Your task to perform on an android device: Show the shopping cart on walmart. Image 0: 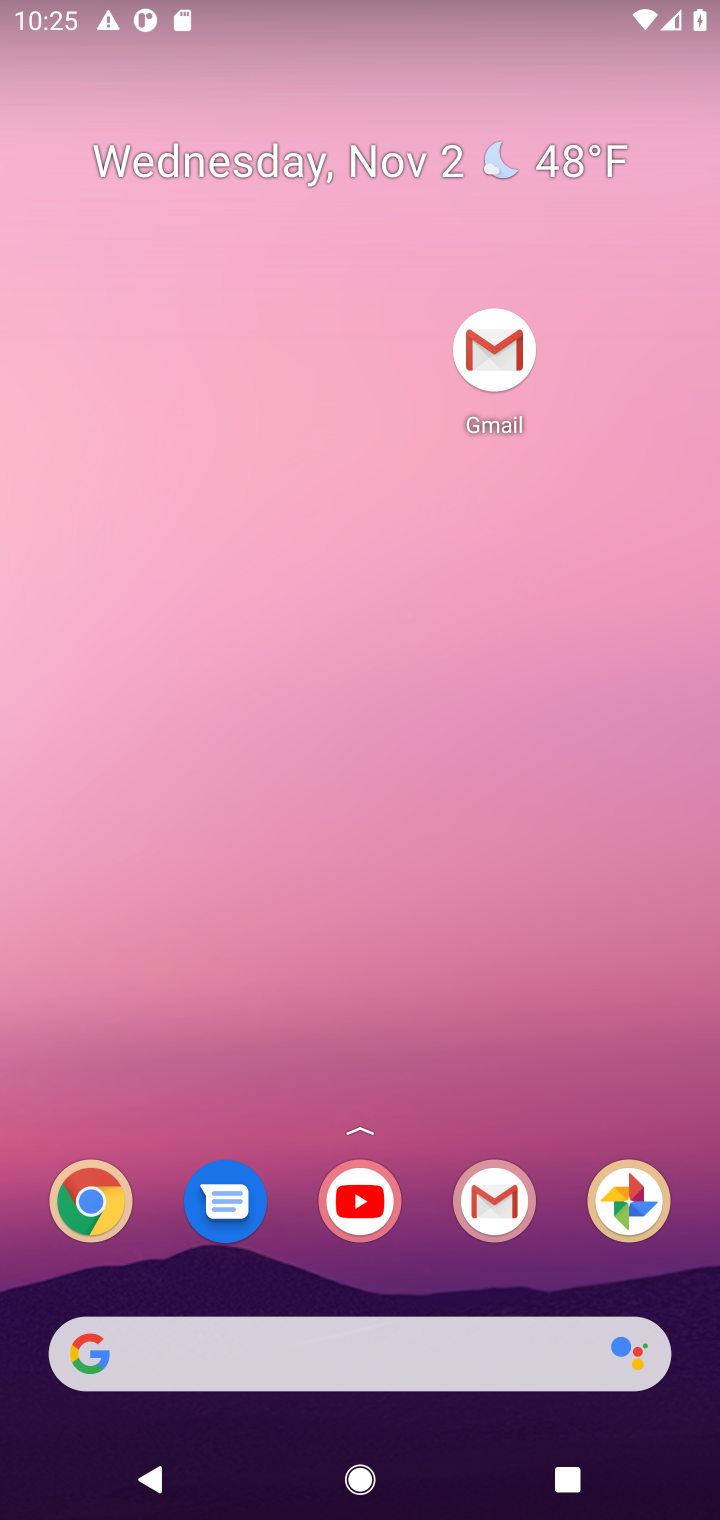
Step 0: drag from (408, 1257) to (298, 228)
Your task to perform on an android device: Show the shopping cart on walmart. Image 1: 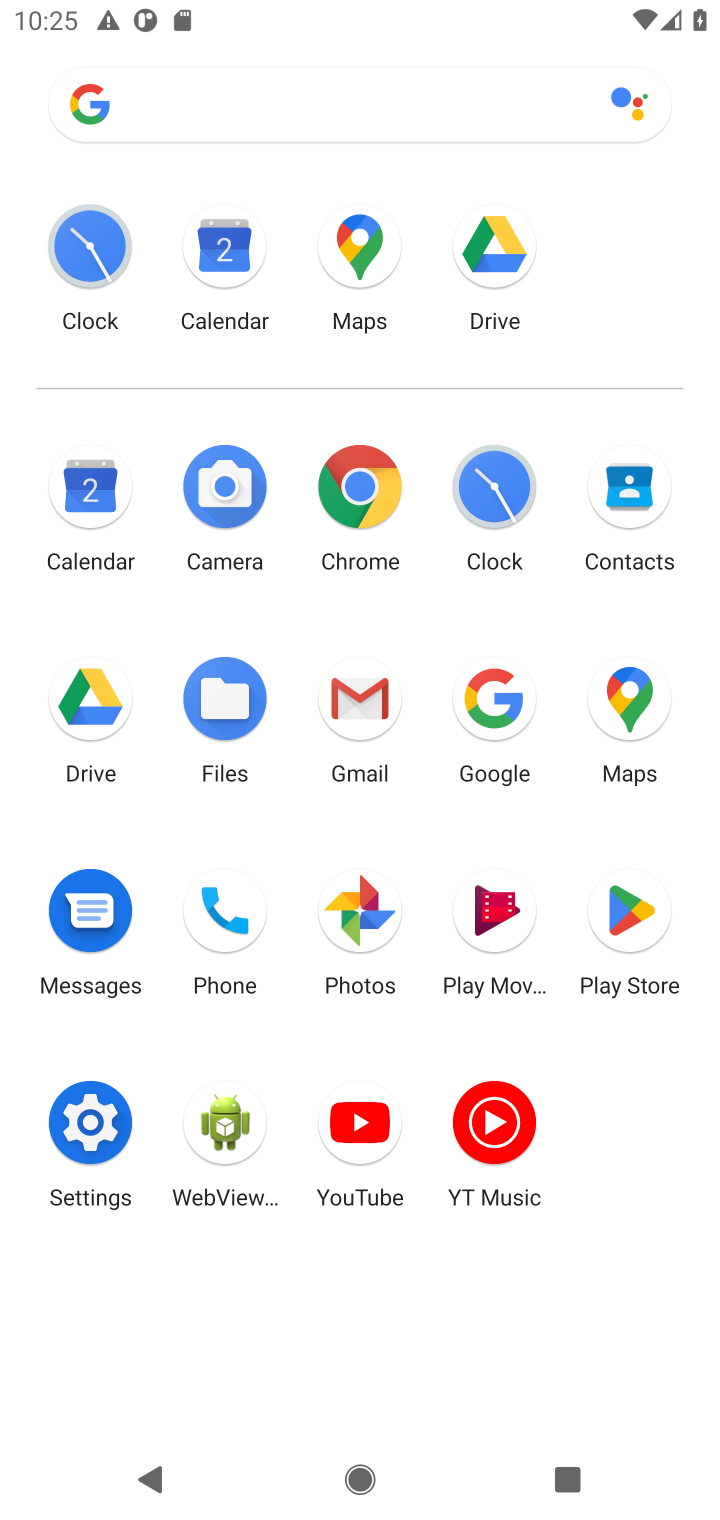
Step 1: click (364, 487)
Your task to perform on an android device: Show the shopping cart on walmart. Image 2: 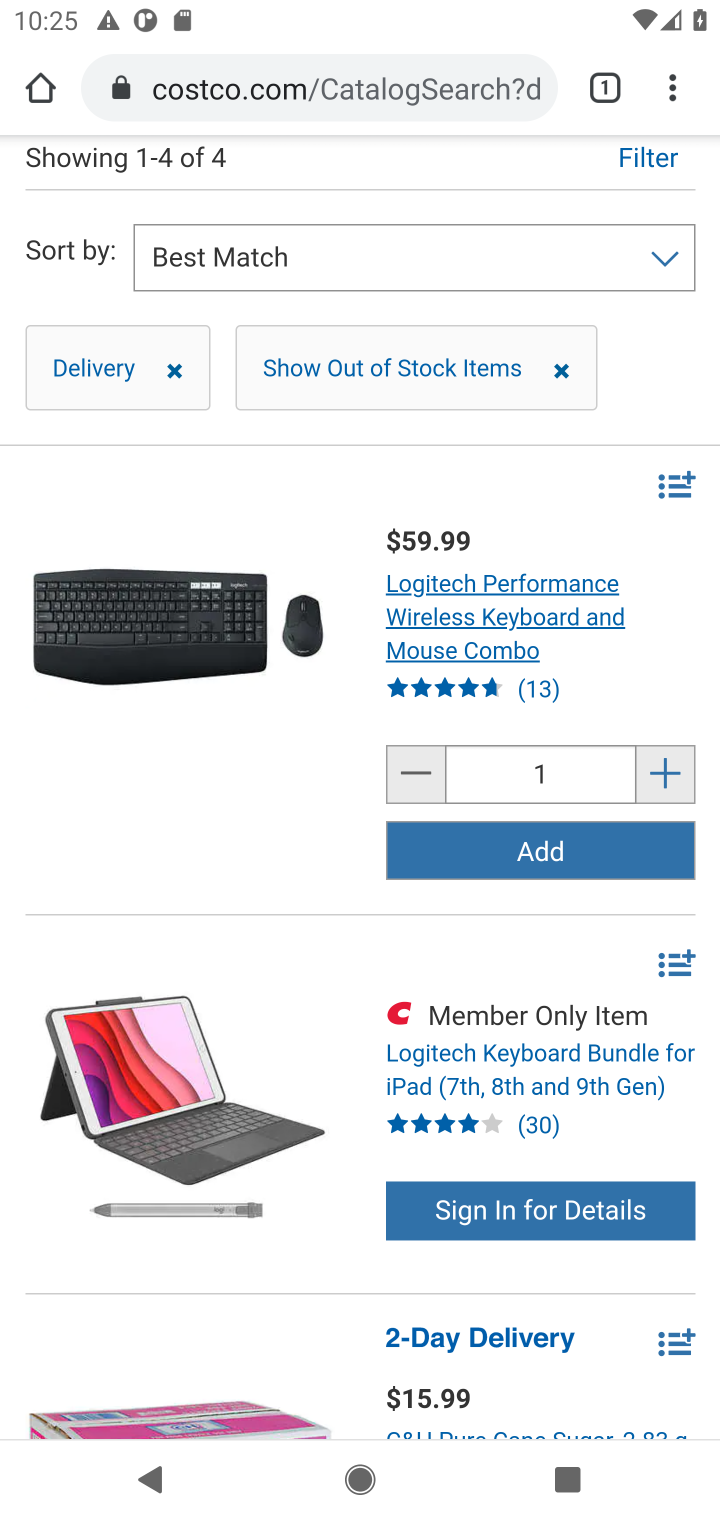
Step 2: click (365, 95)
Your task to perform on an android device: Show the shopping cart on walmart. Image 3: 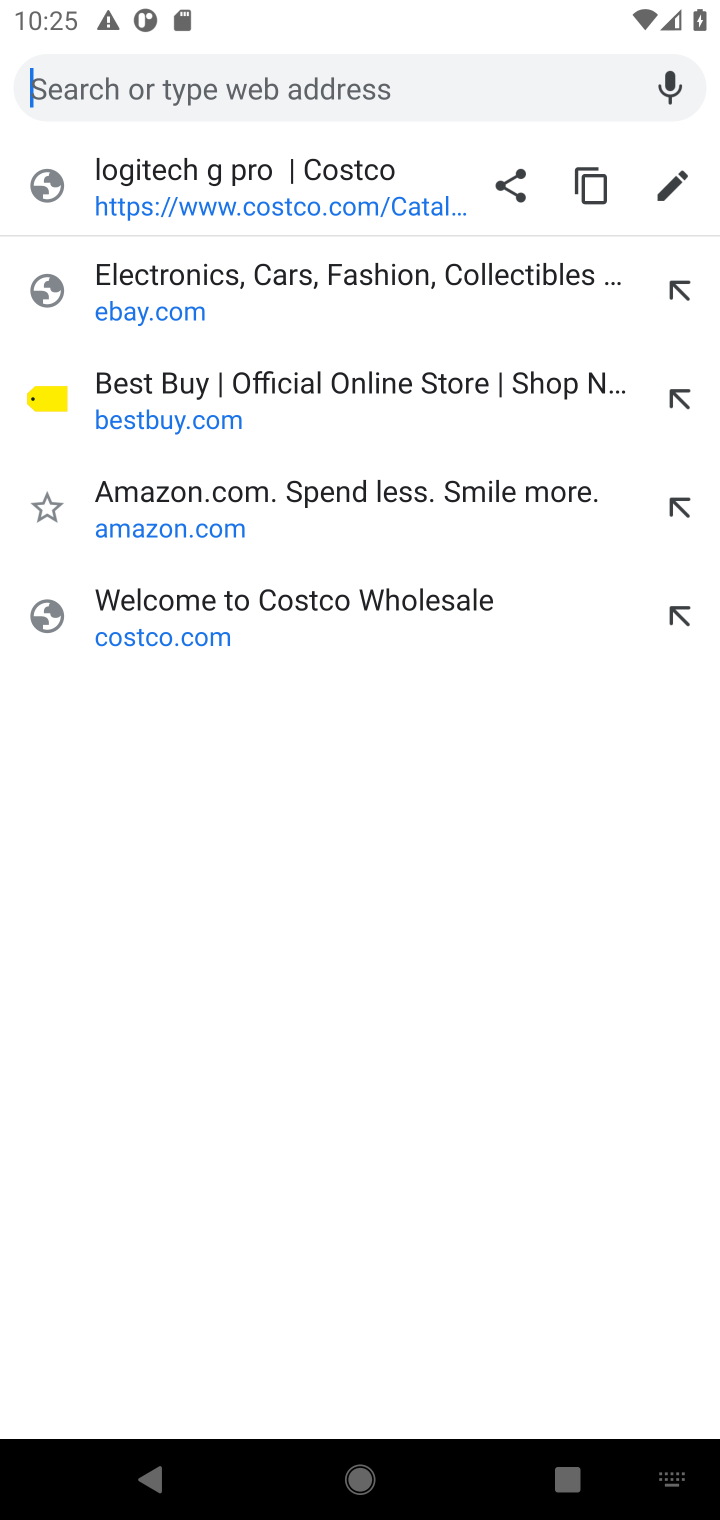
Step 3: type "walmart.com"
Your task to perform on an android device: Show the shopping cart on walmart. Image 4: 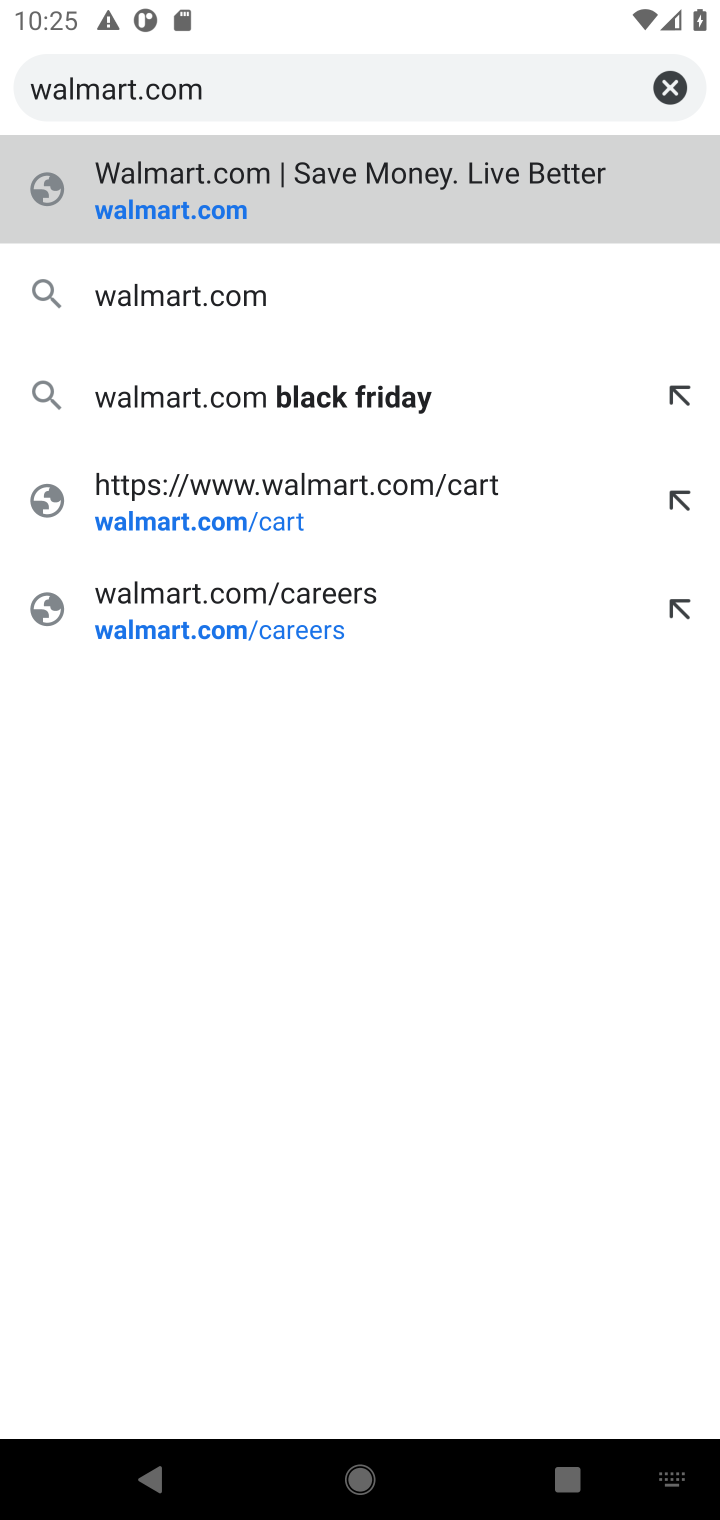
Step 4: press enter
Your task to perform on an android device: Show the shopping cart on walmart. Image 5: 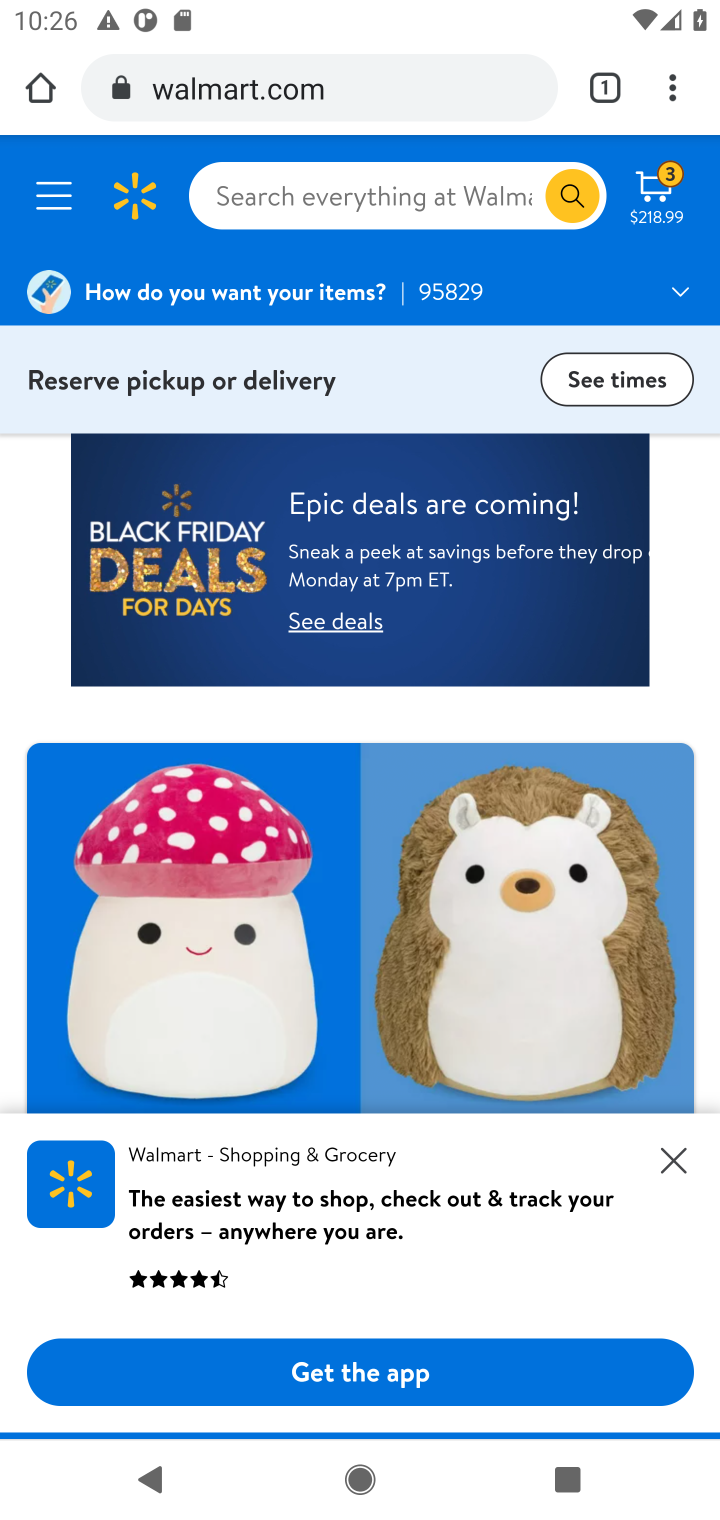
Step 5: click (648, 189)
Your task to perform on an android device: Show the shopping cart on walmart. Image 6: 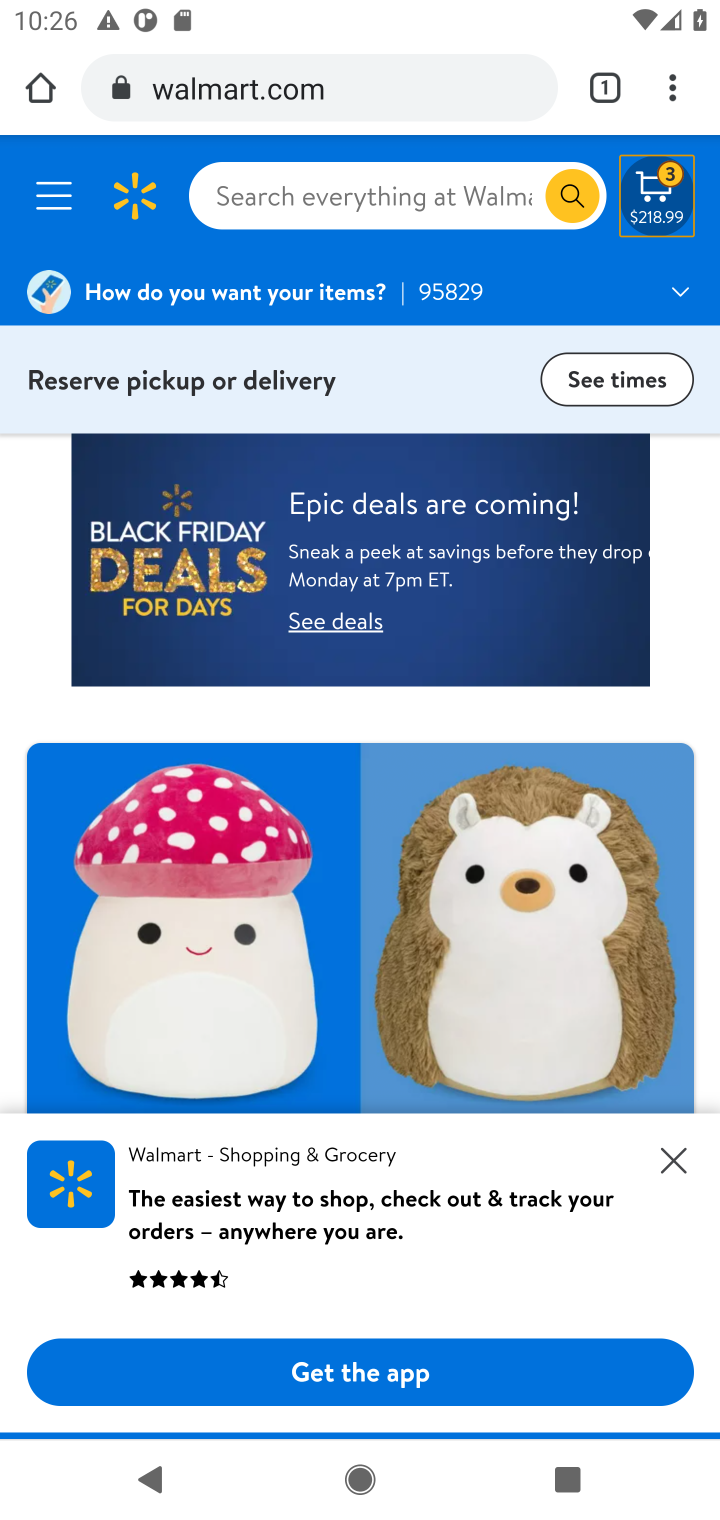
Step 6: click (648, 189)
Your task to perform on an android device: Show the shopping cart on walmart. Image 7: 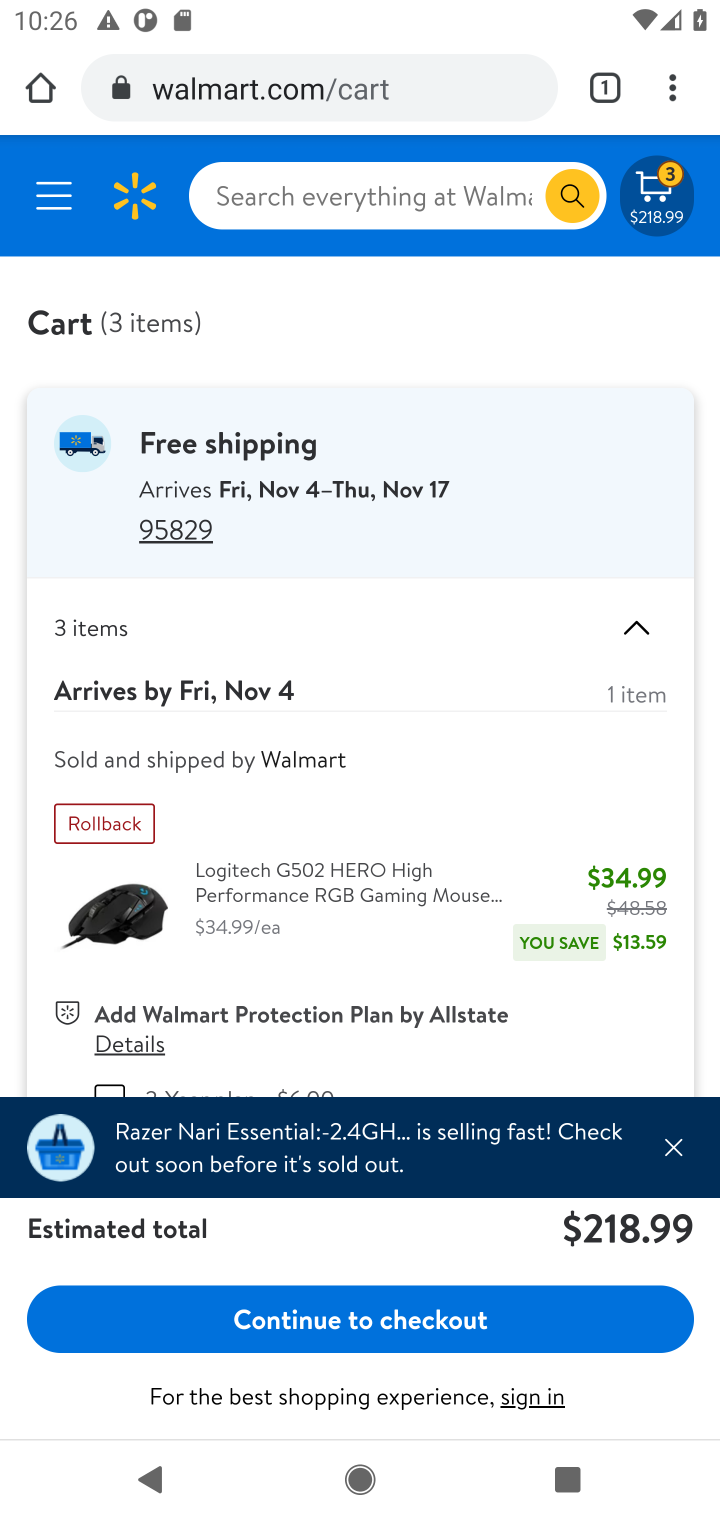
Step 7: task complete